Your task to perform on an android device: Open accessibility settings Image 0: 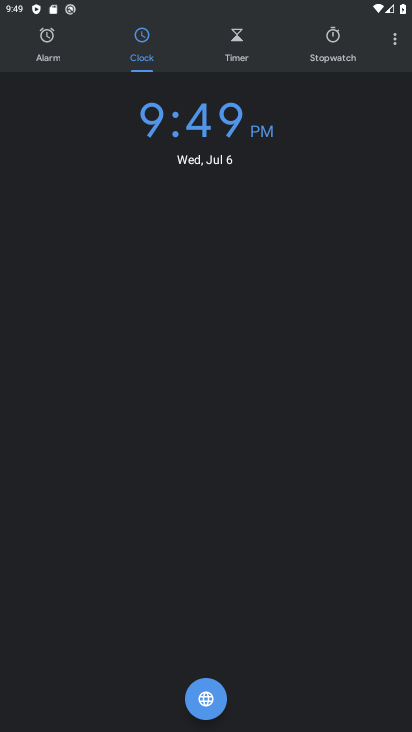
Step 0: press home button
Your task to perform on an android device: Open accessibility settings Image 1: 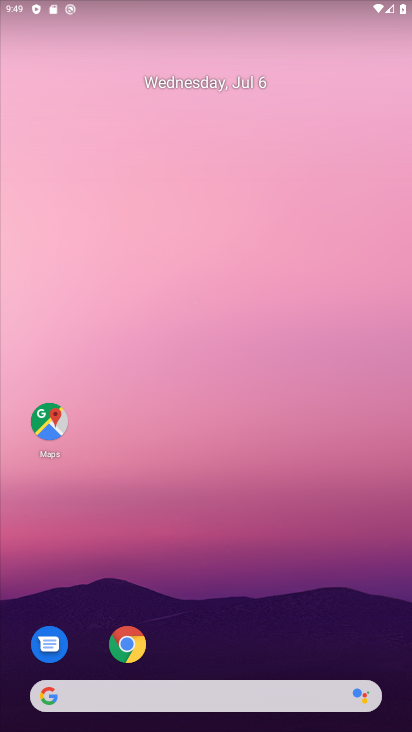
Step 1: drag from (171, 702) to (318, 153)
Your task to perform on an android device: Open accessibility settings Image 2: 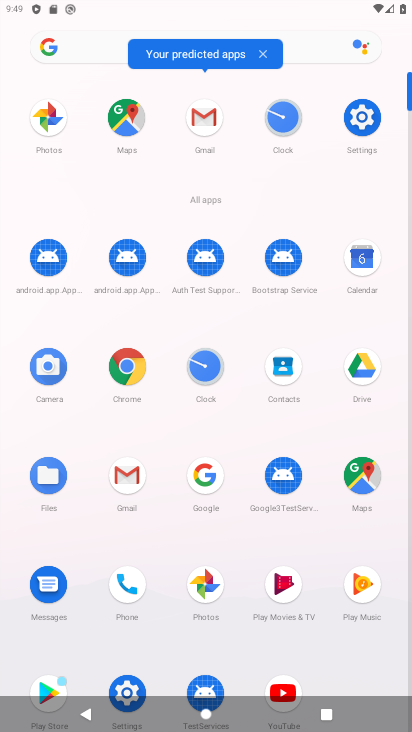
Step 2: drag from (139, 656) to (253, 213)
Your task to perform on an android device: Open accessibility settings Image 3: 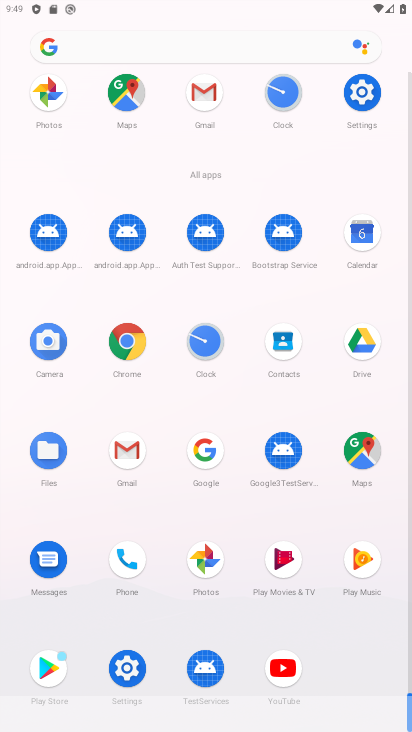
Step 3: click (120, 661)
Your task to perform on an android device: Open accessibility settings Image 4: 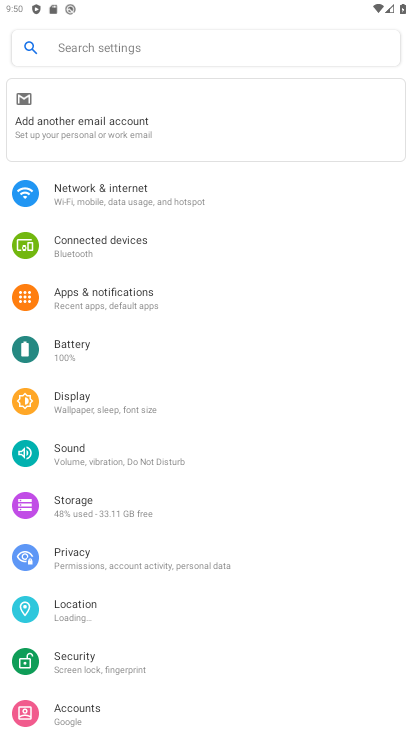
Step 4: drag from (122, 695) to (147, 258)
Your task to perform on an android device: Open accessibility settings Image 5: 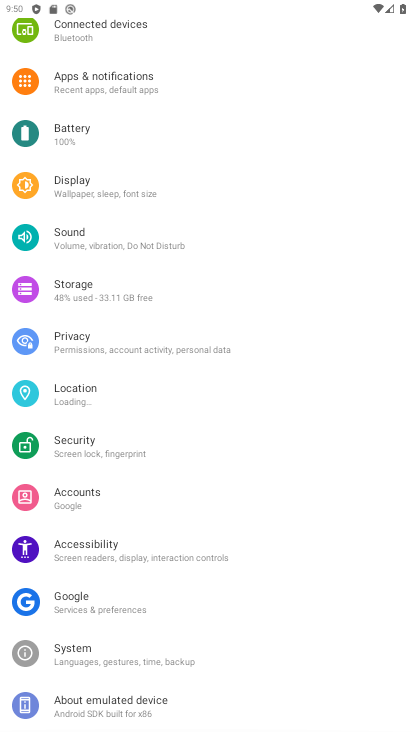
Step 5: click (75, 546)
Your task to perform on an android device: Open accessibility settings Image 6: 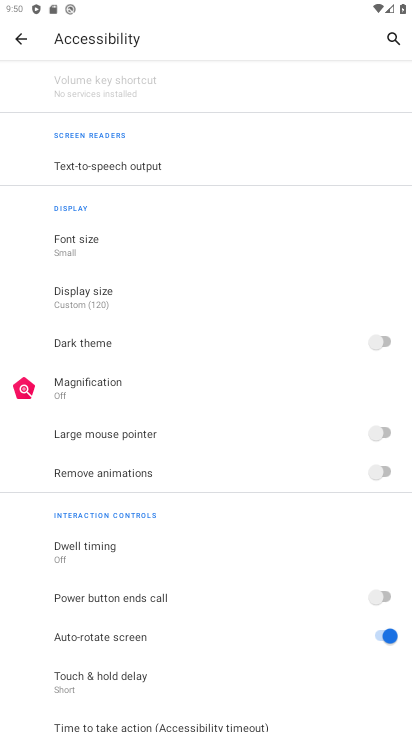
Step 6: task complete